Your task to perform on an android device: Turn on the flashlight Image 0: 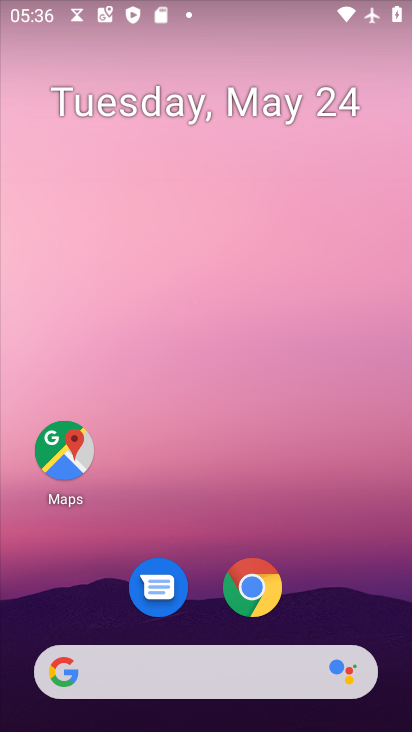
Step 0: drag from (238, 11) to (223, 547)
Your task to perform on an android device: Turn on the flashlight Image 1: 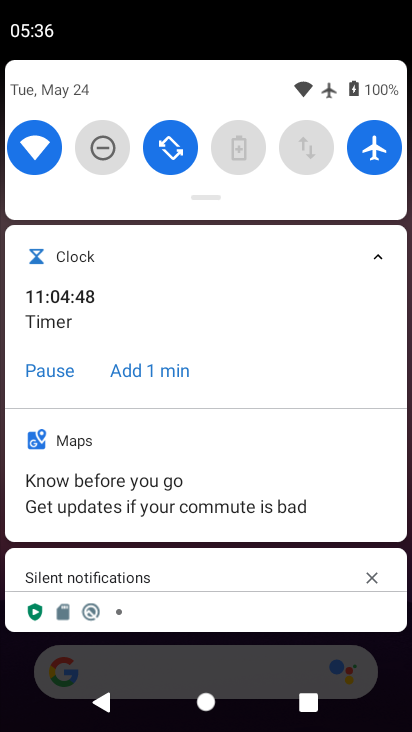
Step 1: task complete